Your task to perform on an android device: turn on improve location accuracy Image 0: 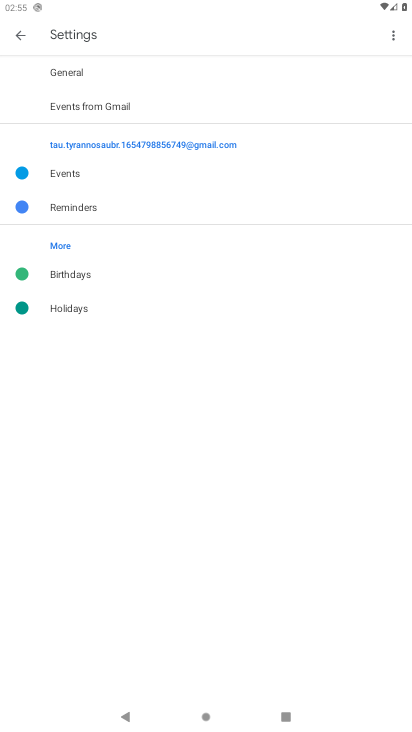
Step 0: press home button
Your task to perform on an android device: turn on improve location accuracy Image 1: 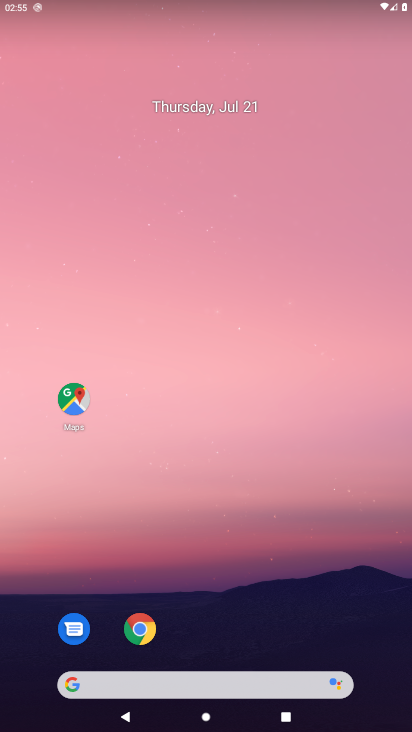
Step 1: drag from (35, 689) to (197, 138)
Your task to perform on an android device: turn on improve location accuracy Image 2: 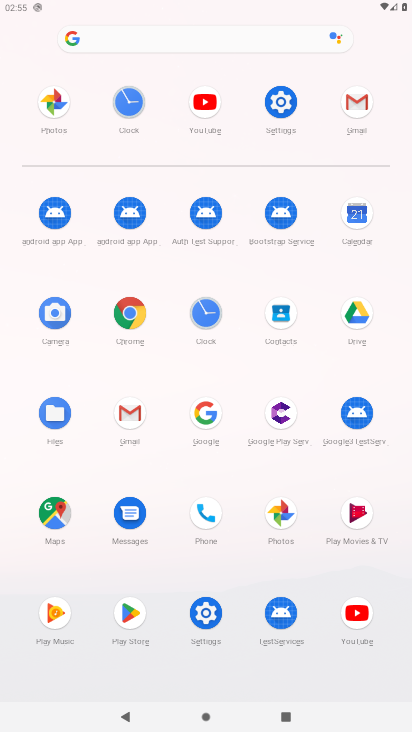
Step 2: click (219, 617)
Your task to perform on an android device: turn on improve location accuracy Image 3: 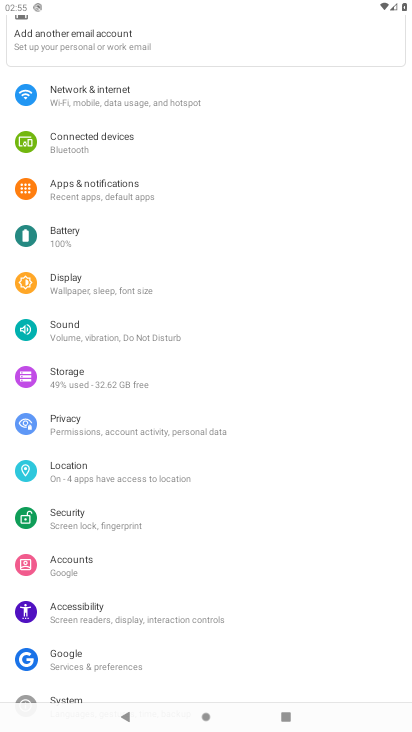
Step 3: click (92, 471)
Your task to perform on an android device: turn on improve location accuracy Image 4: 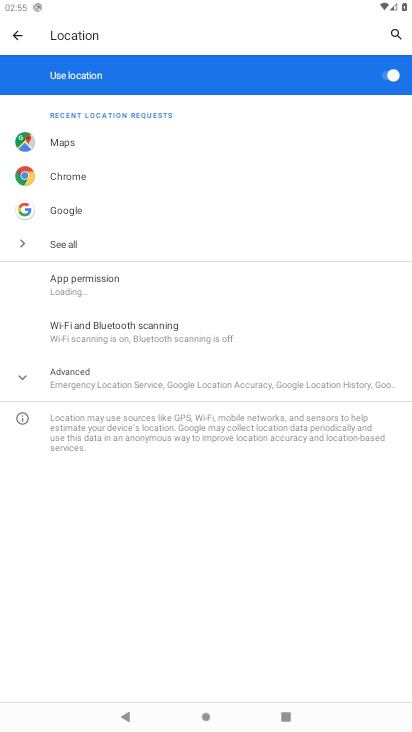
Step 4: click (85, 372)
Your task to perform on an android device: turn on improve location accuracy Image 5: 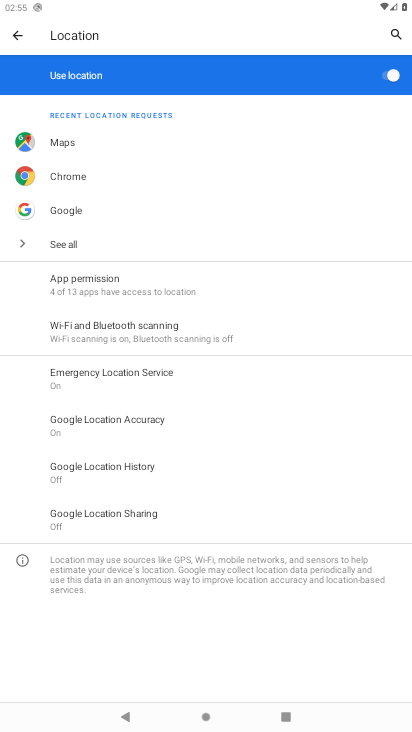
Step 5: task complete